Your task to perform on an android device: Go to Android settings Image 0: 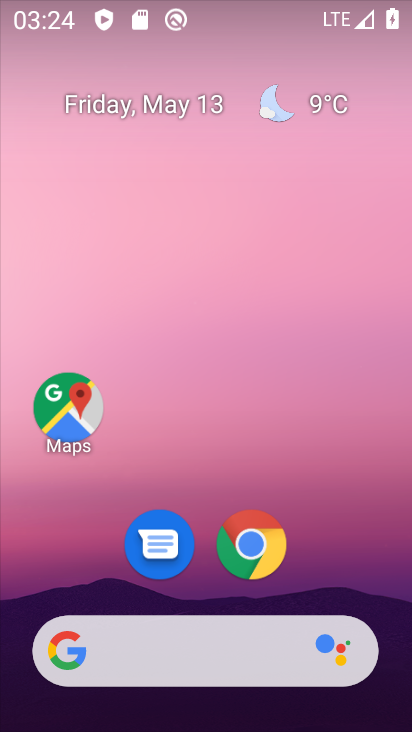
Step 0: drag from (321, 544) to (249, 49)
Your task to perform on an android device: Go to Android settings Image 1: 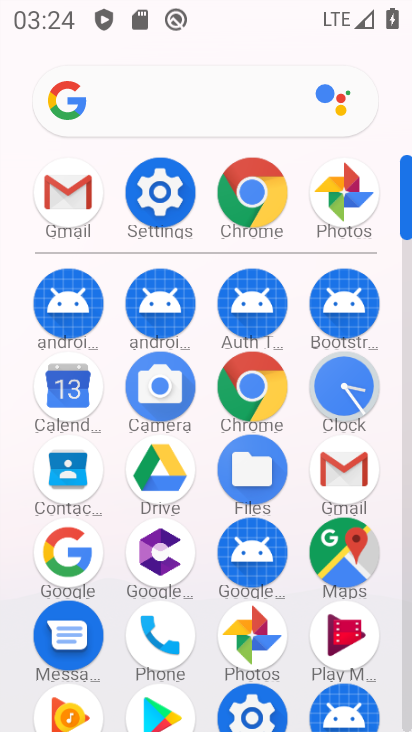
Step 1: click (157, 185)
Your task to perform on an android device: Go to Android settings Image 2: 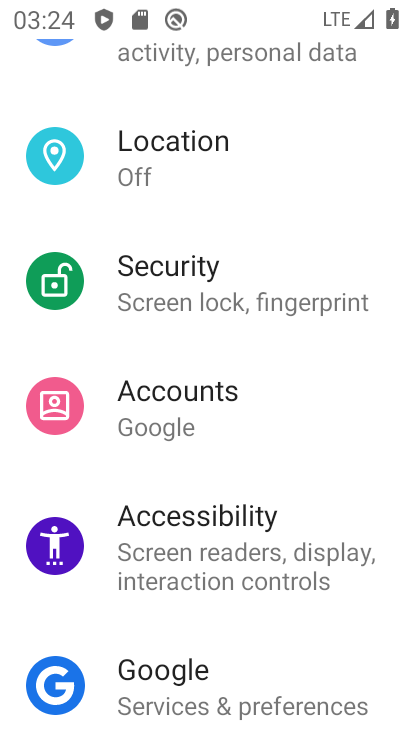
Step 2: task complete